Your task to perform on an android device: check data usage Image 0: 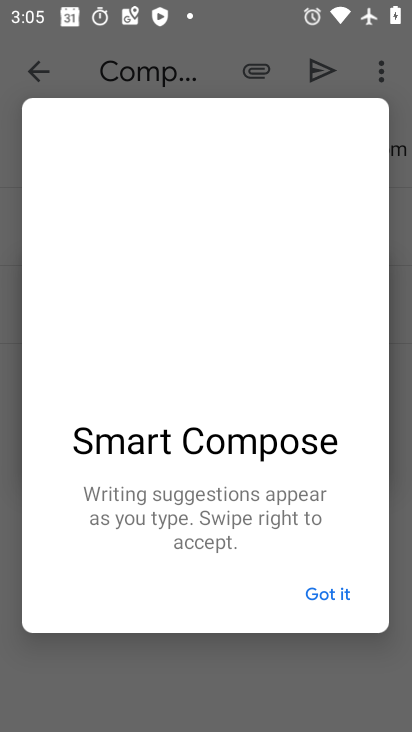
Step 0: press home button
Your task to perform on an android device: check data usage Image 1: 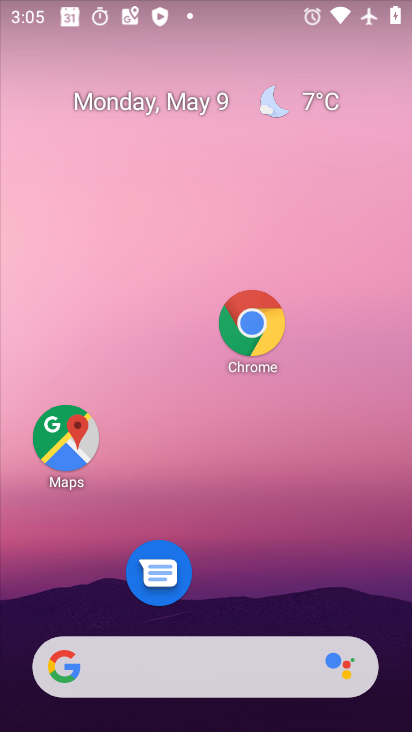
Step 1: drag from (158, 649) to (273, 69)
Your task to perform on an android device: check data usage Image 2: 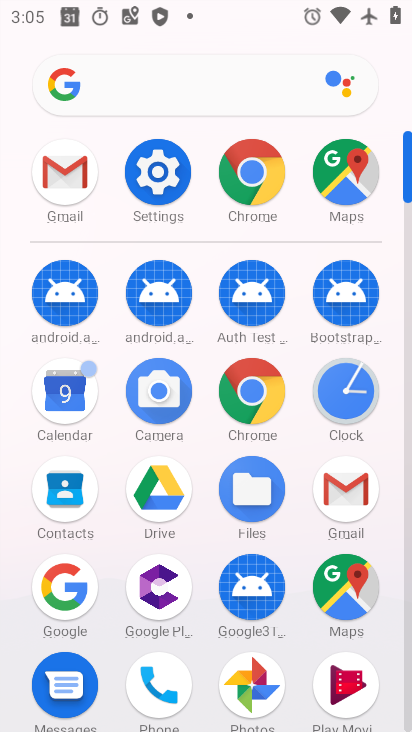
Step 2: click (141, 186)
Your task to perform on an android device: check data usage Image 3: 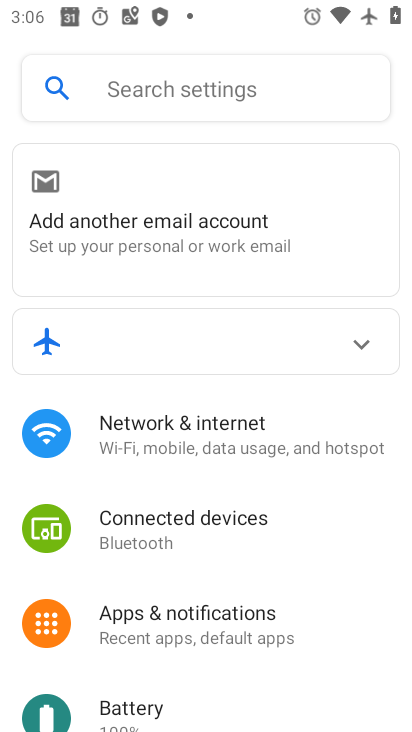
Step 3: click (148, 430)
Your task to perform on an android device: check data usage Image 4: 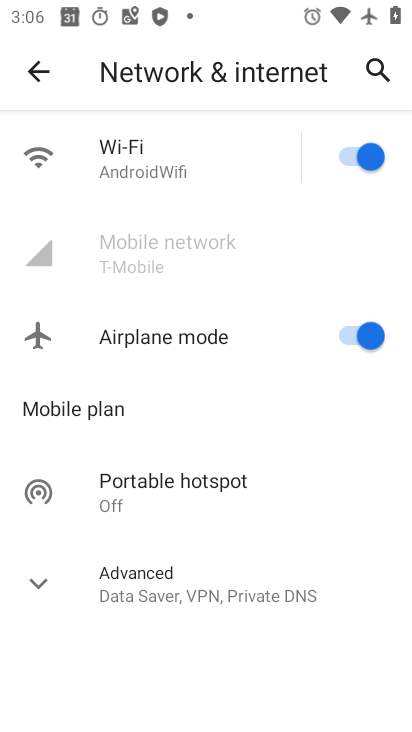
Step 4: click (139, 146)
Your task to perform on an android device: check data usage Image 5: 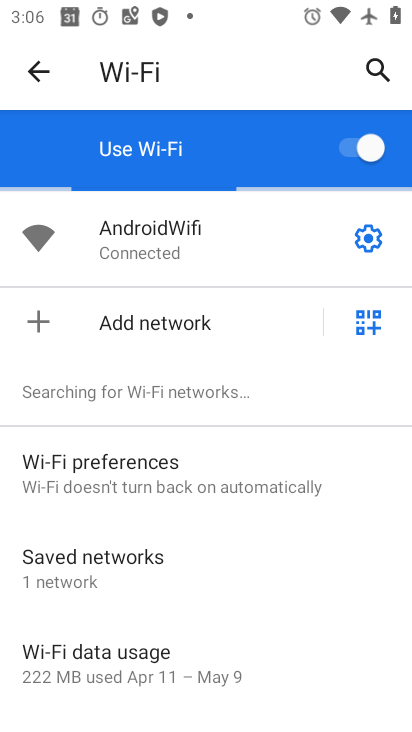
Step 5: drag from (71, 646) to (278, 139)
Your task to perform on an android device: check data usage Image 6: 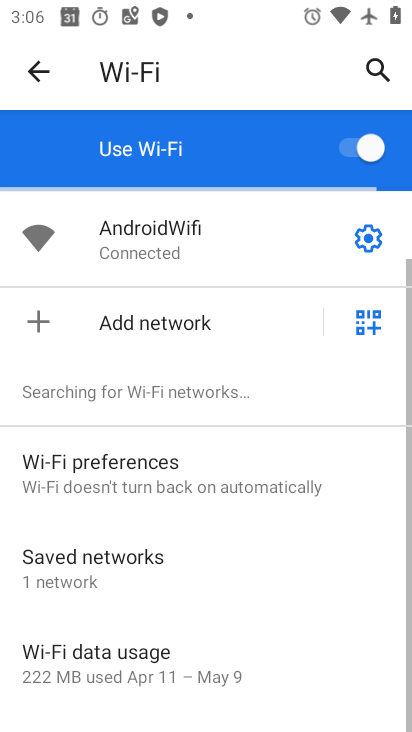
Step 6: click (110, 660)
Your task to perform on an android device: check data usage Image 7: 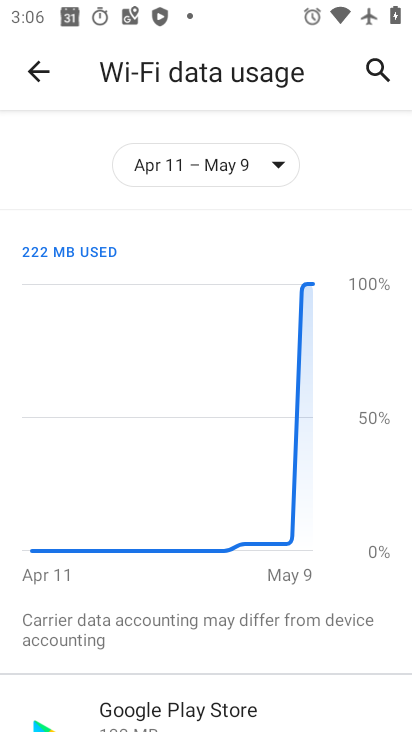
Step 7: task complete